Your task to perform on an android device: turn on notifications settings in the gmail app Image 0: 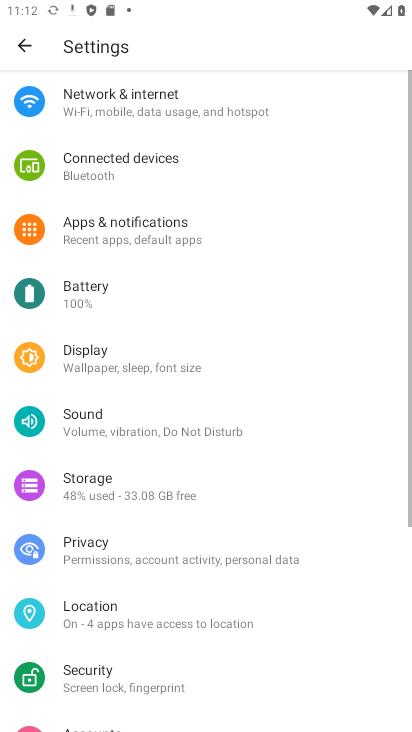
Step 0: click (140, 217)
Your task to perform on an android device: turn on notifications settings in the gmail app Image 1: 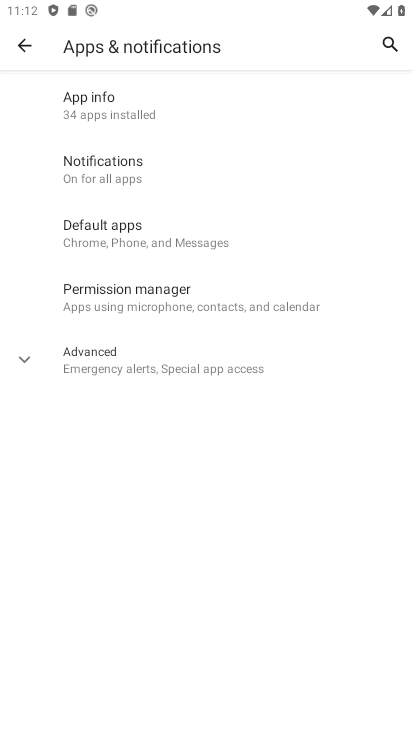
Step 1: click (135, 163)
Your task to perform on an android device: turn on notifications settings in the gmail app Image 2: 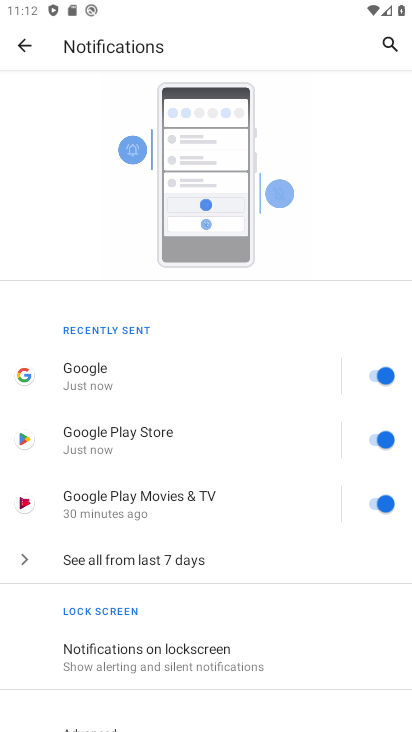
Step 2: click (86, 550)
Your task to perform on an android device: turn on notifications settings in the gmail app Image 3: 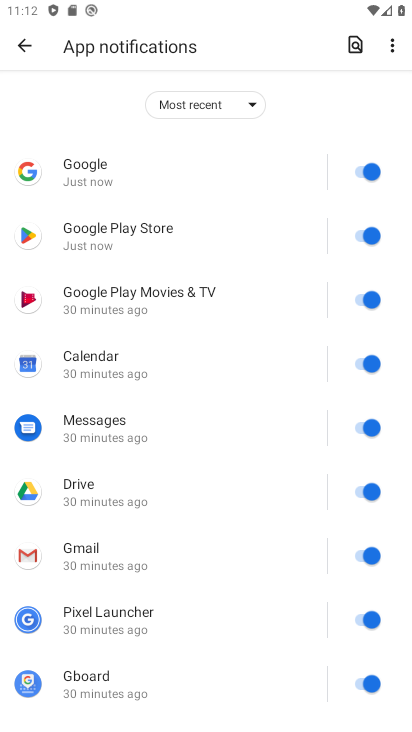
Step 3: click (171, 557)
Your task to perform on an android device: turn on notifications settings in the gmail app Image 4: 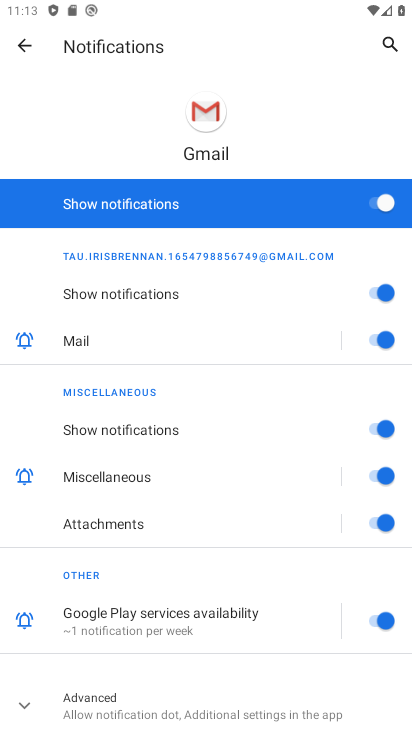
Step 4: task complete